Your task to perform on an android device: open the mobile data screen to see how much data has been used Image 0: 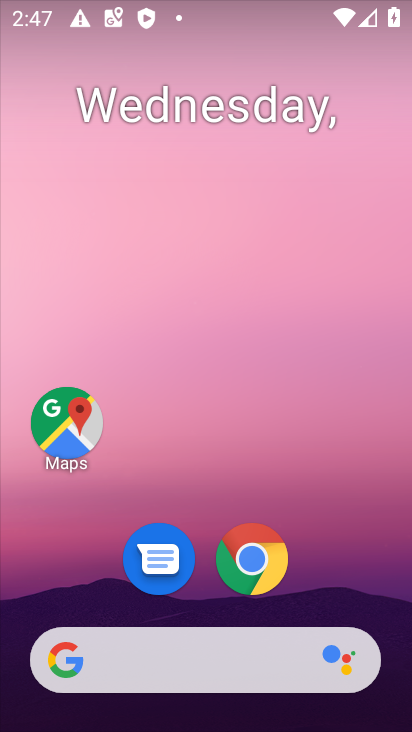
Step 0: drag from (199, 612) to (197, 83)
Your task to perform on an android device: open the mobile data screen to see how much data has been used Image 1: 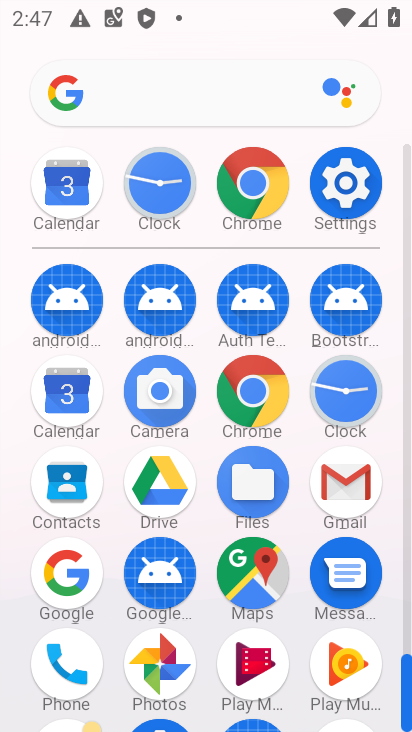
Step 1: click (355, 182)
Your task to perform on an android device: open the mobile data screen to see how much data has been used Image 2: 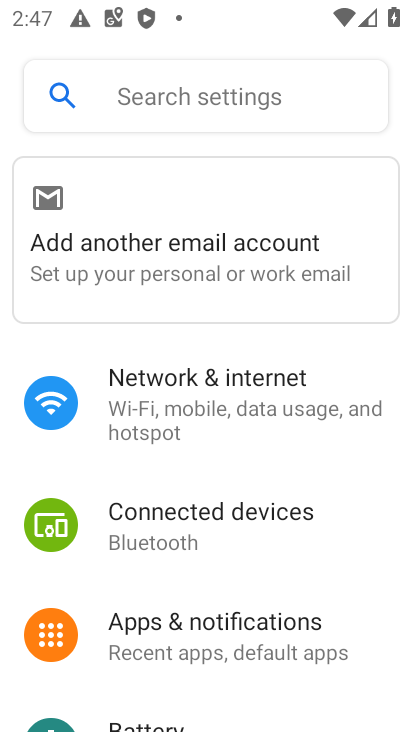
Step 2: click (164, 402)
Your task to perform on an android device: open the mobile data screen to see how much data has been used Image 3: 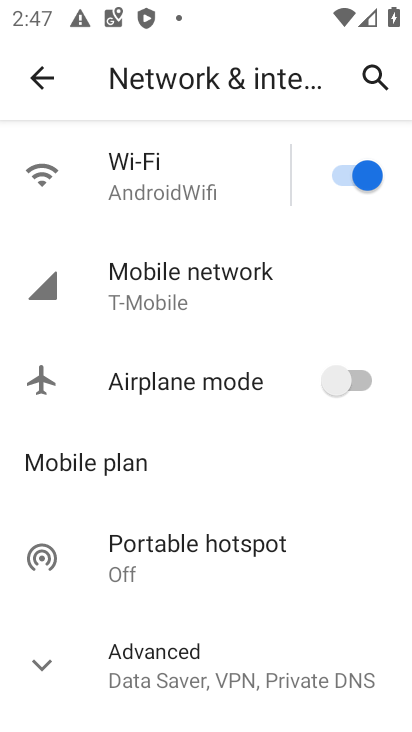
Step 3: click (164, 275)
Your task to perform on an android device: open the mobile data screen to see how much data has been used Image 4: 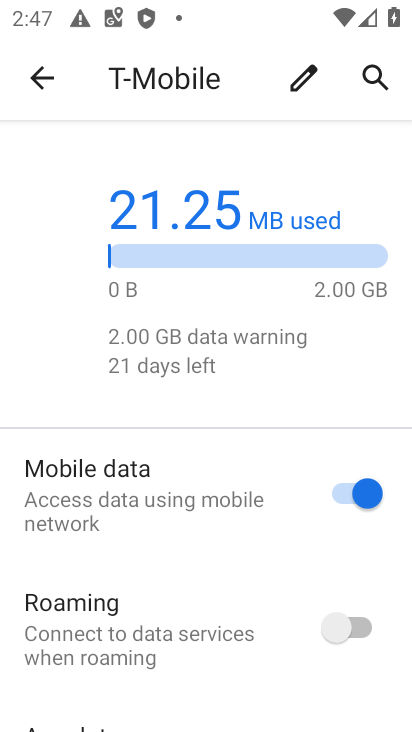
Step 4: drag from (165, 691) to (185, 405)
Your task to perform on an android device: open the mobile data screen to see how much data has been used Image 5: 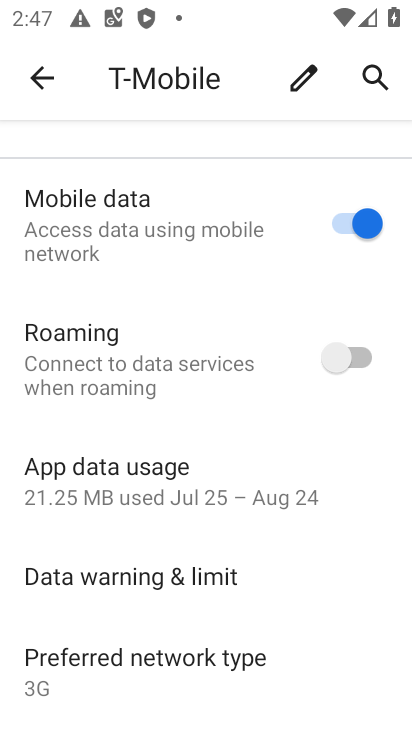
Step 5: click (126, 482)
Your task to perform on an android device: open the mobile data screen to see how much data has been used Image 6: 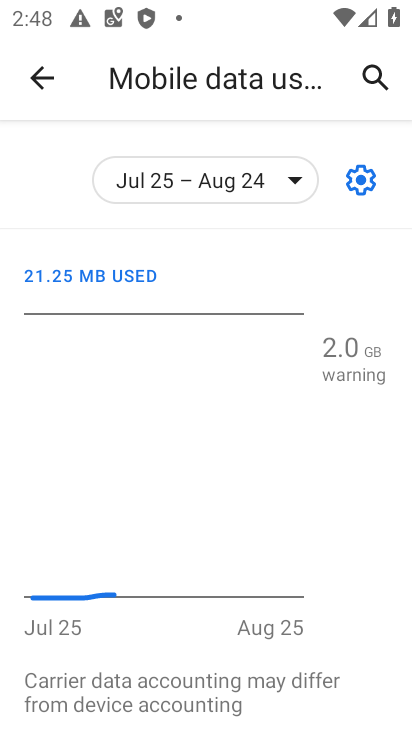
Step 6: task complete